Your task to perform on an android device: star an email in the gmail app Image 0: 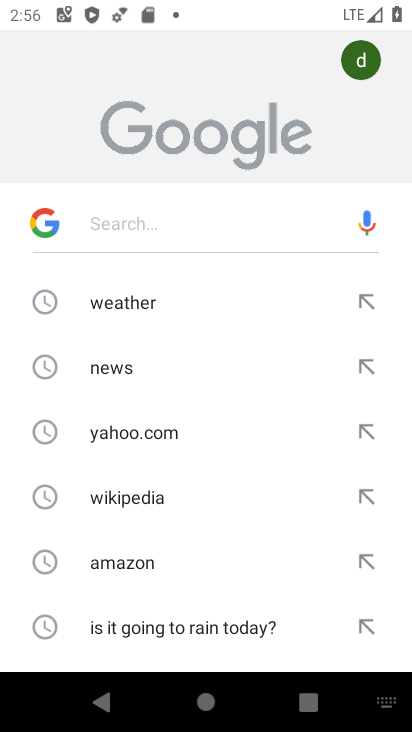
Step 0: press home button
Your task to perform on an android device: star an email in the gmail app Image 1: 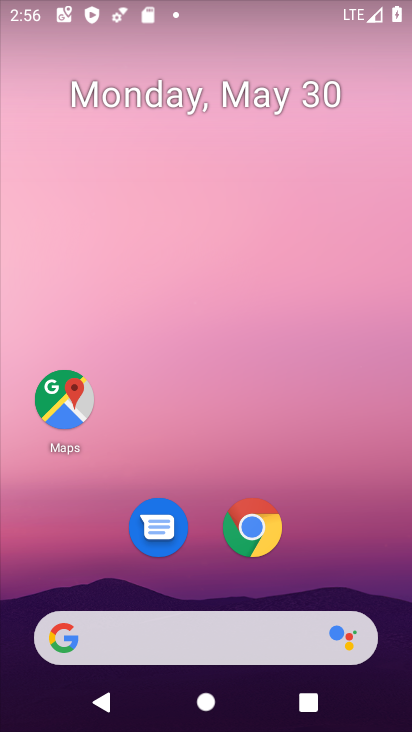
Step 1: drag from (317, 566) to (252, 80)
Your task to perform on an android device: star an email in the gmail app Image 2: 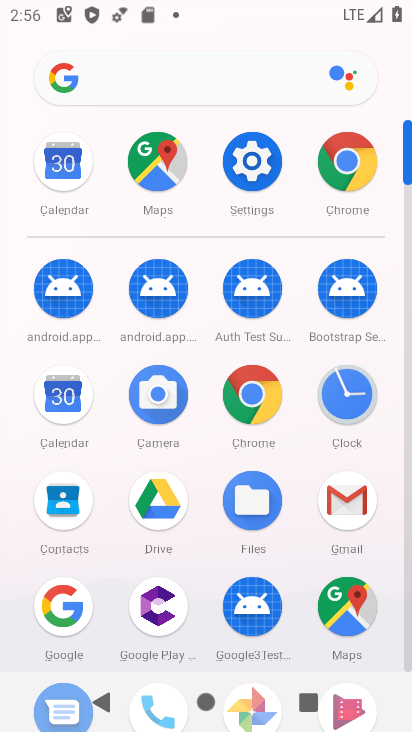
Step 2: click (330, 498)
Your task to perform on an android device: star an email in the gmail app Image 3: 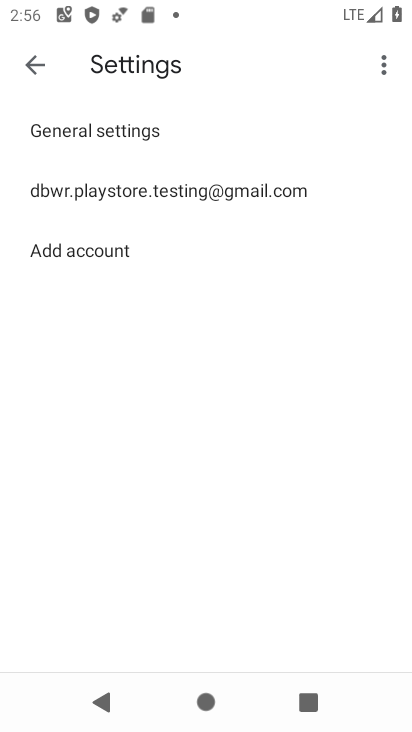
Step 3: click (197, 189)
Your task to perform on an android device: star an email in the gmail app Image 4: 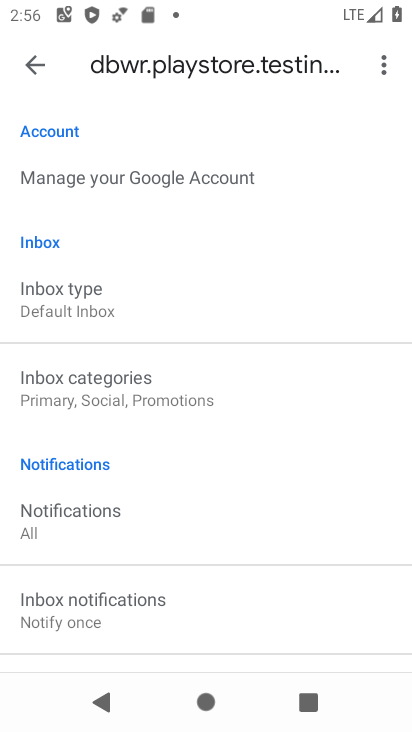
Step 4: click (27, 60)
Your task to perform on an android device: star an email in the gmail app Image 5: 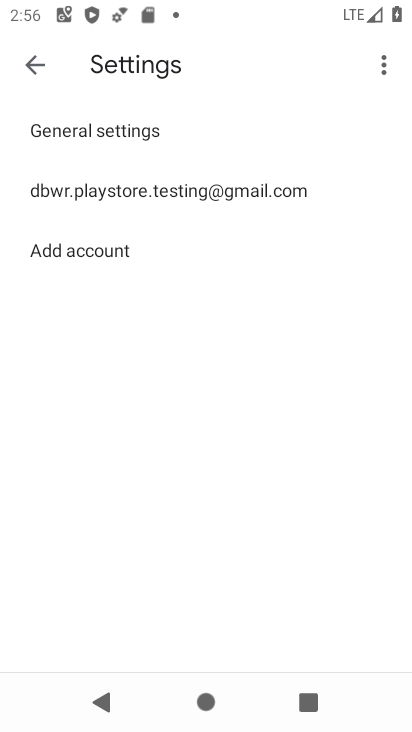
Step 5: click (27, 60)
Your task to perform on an android device: star an email in the gmail app Image 6: 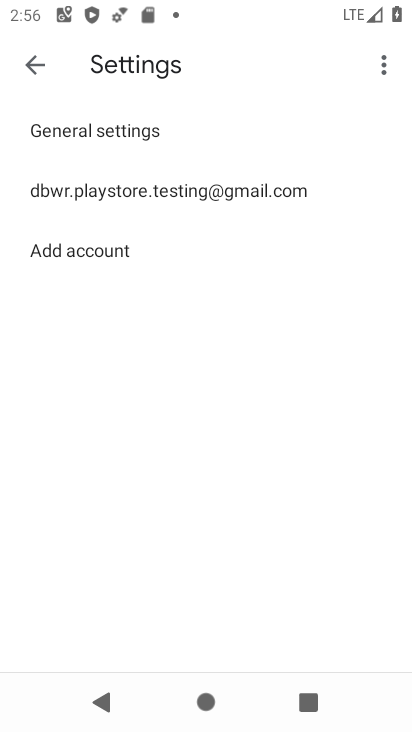
Step 6: click (27, 60)
Your task to perform on an android device: star an email in the gmail app Image 7: 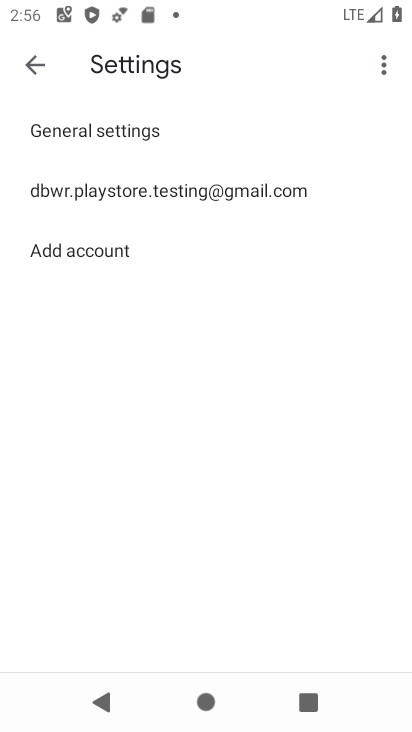
Step 7: click (35, 58)
Your task to perform on an android device: star an email in the gmail app Image 8: 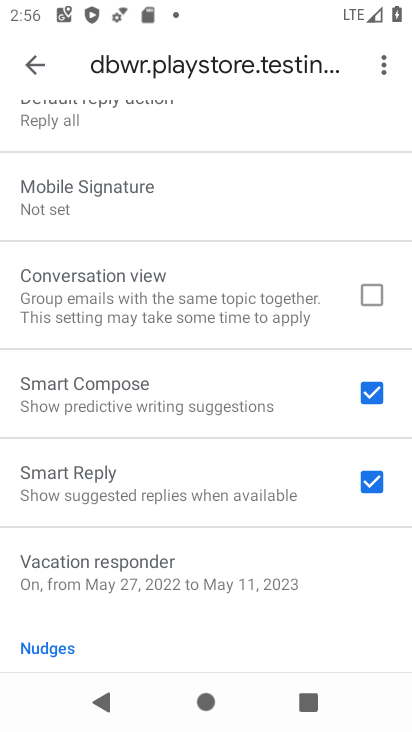
Step 8: click (23, 65)
Your task to perform on an android device: star an email in the gmail app Image 9: 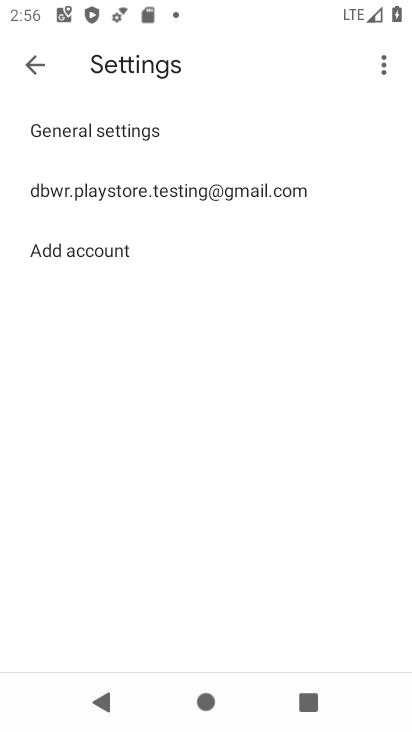
Step 9: click (30, 62)
Your task to perform on an android device: star an email in the gmail app Image 10: 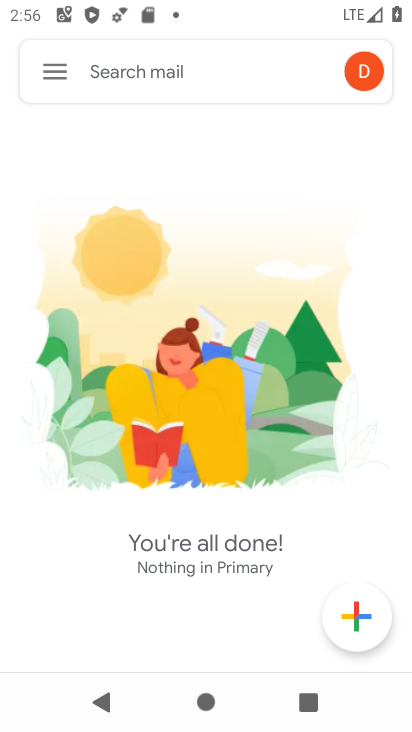
Step 10: click (30, 62)
Your task to perform on an android device: star an email in the gmail app Image 11: 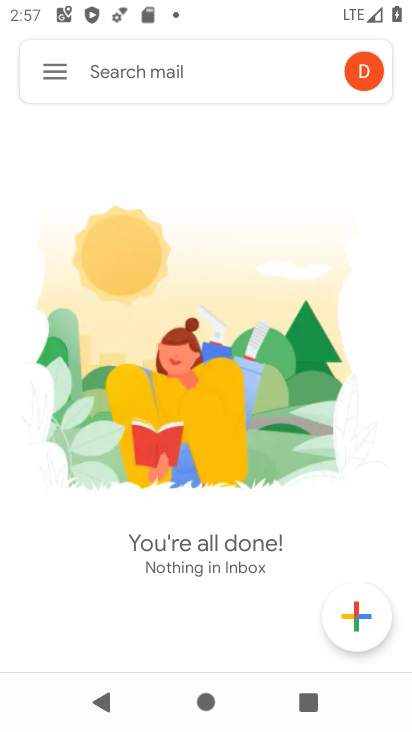
Step 11: task complete